Your task to perform on an android device: toggle airplane mode Image 0: 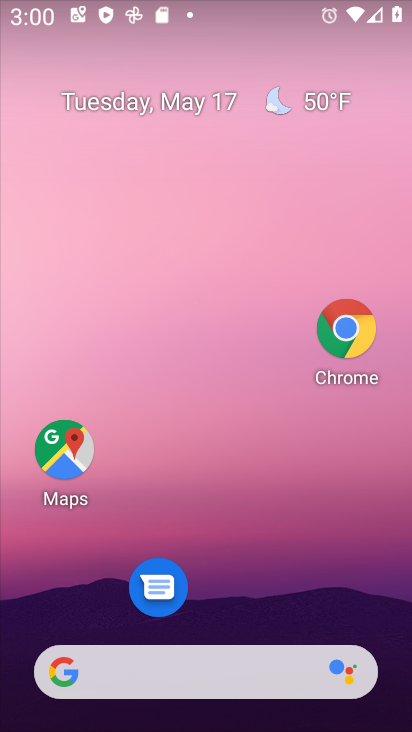
Step 0: drag from (265, 610) to (261, 9)
Your task to perform on an android device: toggle airplane mode Image 1: 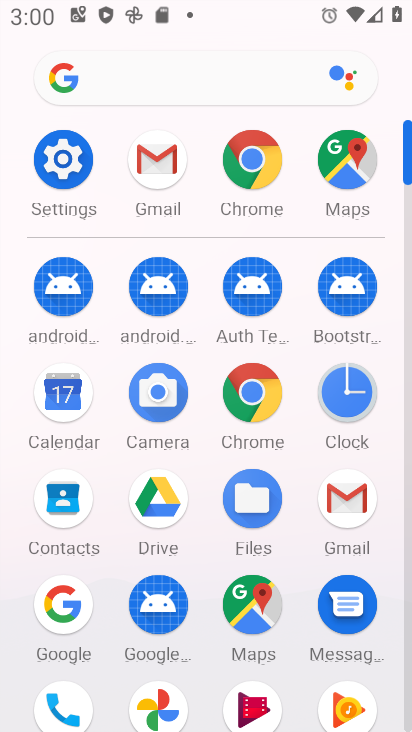
Step 1: click (72, 184)
Your task to perform on an android device: toggle airplane mode Image 2: 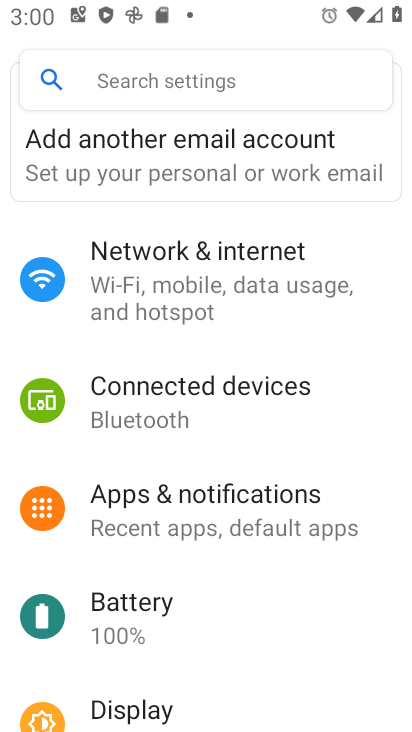
Step 2: click (204, 240)
Your task to perform on an android device: toggle airplane mode Image 3: 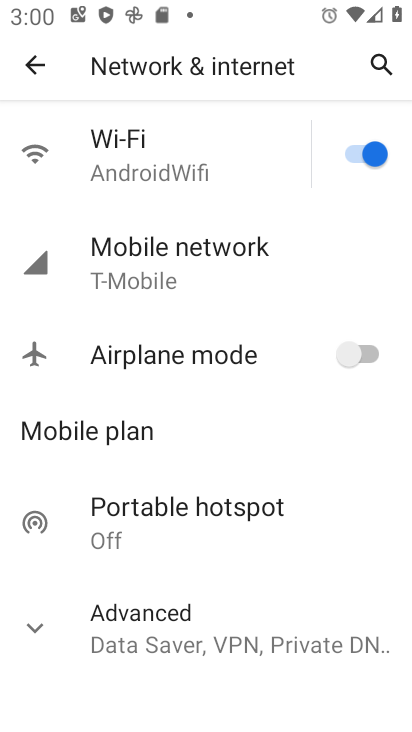
Step 3: click (378, 345)
Your task to perform on an android device: toggle airplane mode Image 4: 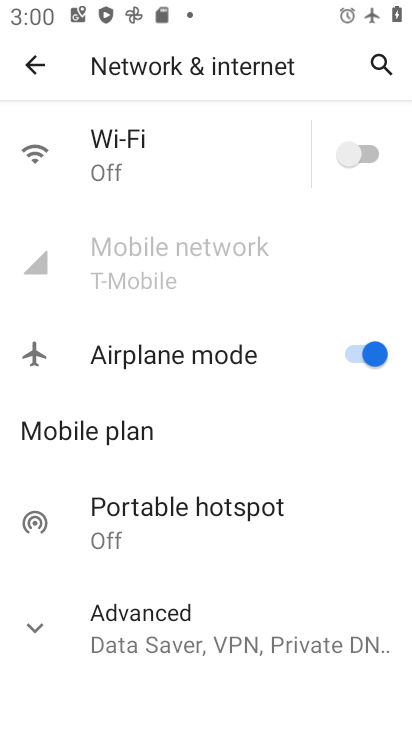
Step 4: task complete